Your task to perform on an android device: Go to CNN.com Image 0: 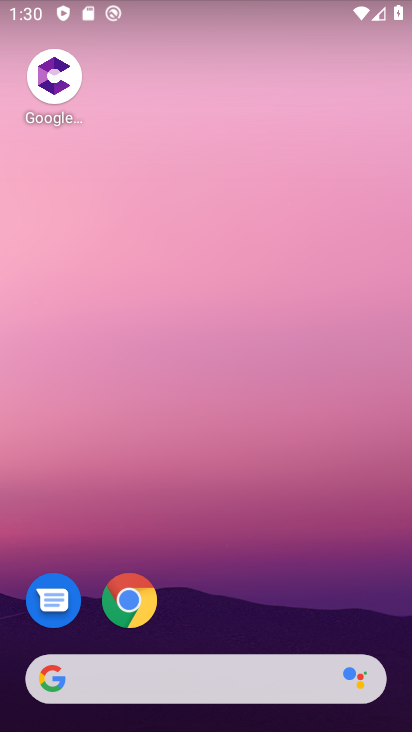
Step 0: click (128, 592)
Your task to perform on an android device: Go to CNN.com Image 1: 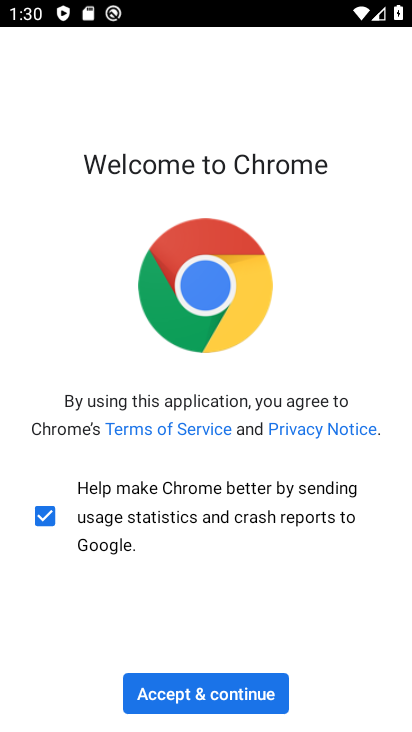
Step 1: click (187, 708)
Your task to perform on an android device: Go to CNN.com Image 2: 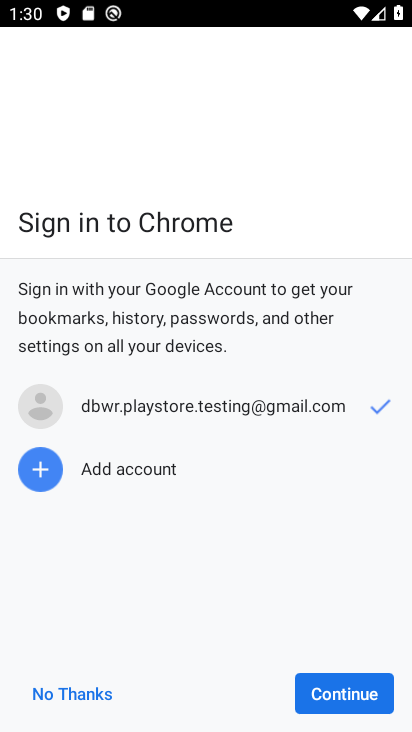
Step 2: click (330, 699)
Your task to perform on an android device: Go to CNN.com Image 3: 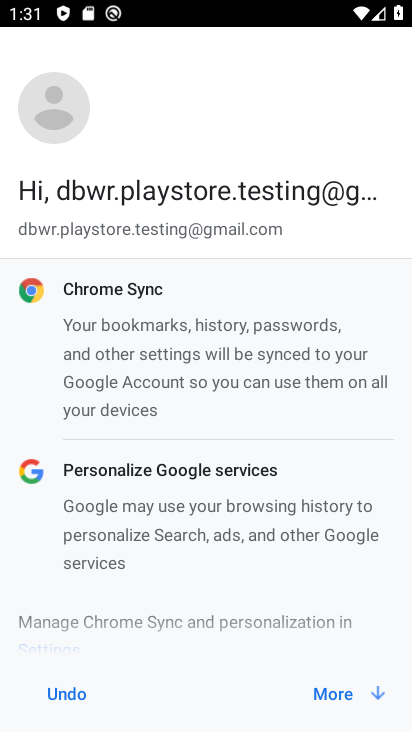
Step 3: click (330, 699)
Your task to perform on an android device: Go to CNN.com Image 4: 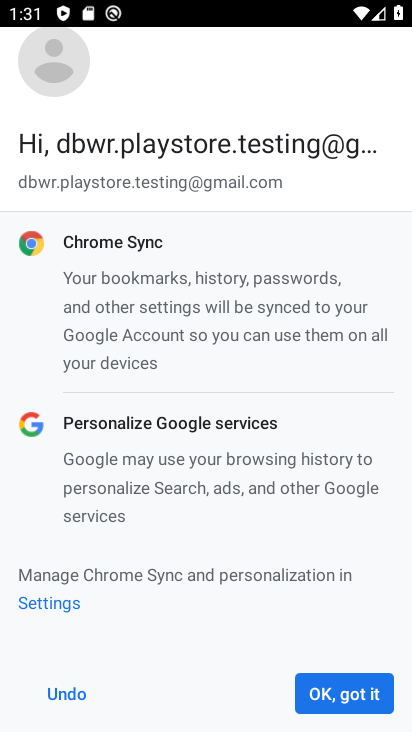
Step 4: click (331, 697)
Your task to perform on an android device: Go to CNN.com Image 5: 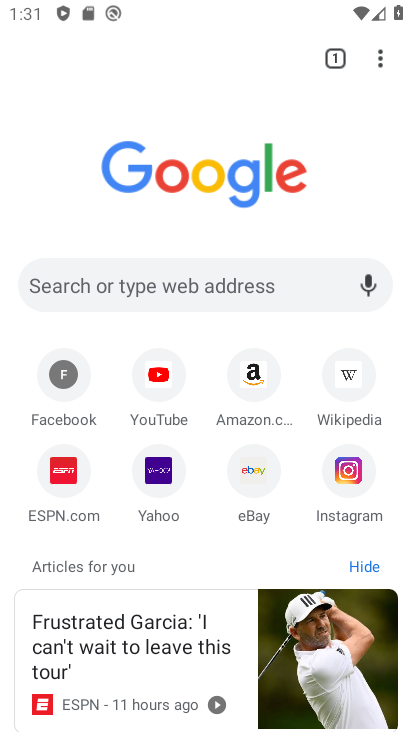
Step 5: click (110, 269)
Your task to perform on an android device: Go to CNN.com Image 6: 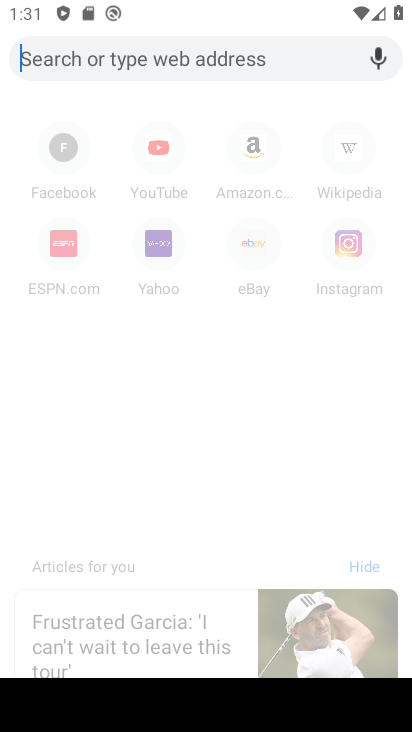
Step 6: type "Cnn.com"
Your task to perform on an android device: Go to CNN.com Image 7: 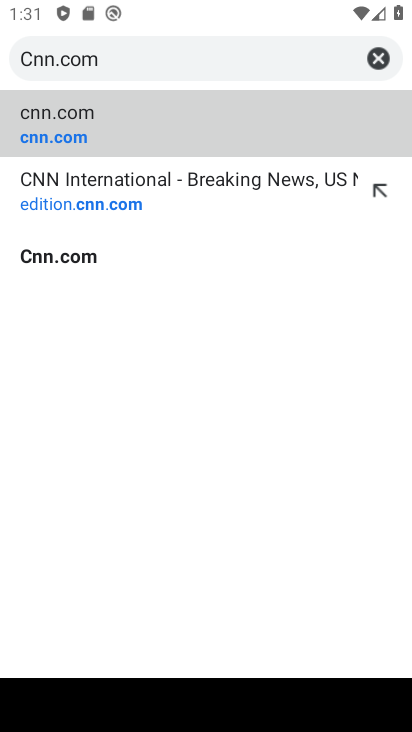
Step 7: click (19, 134)
Your task to perform on an android device: Go to CNN.com Image 8: 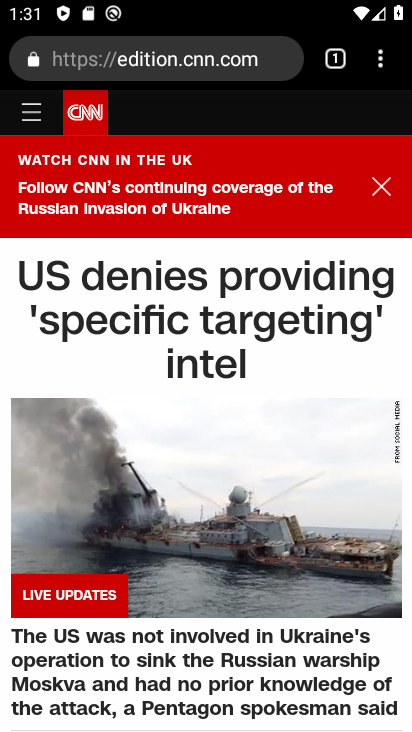
Step 8: task complete